Your task to perform on an android device: Go to calendar. Show me events next week Image 0: 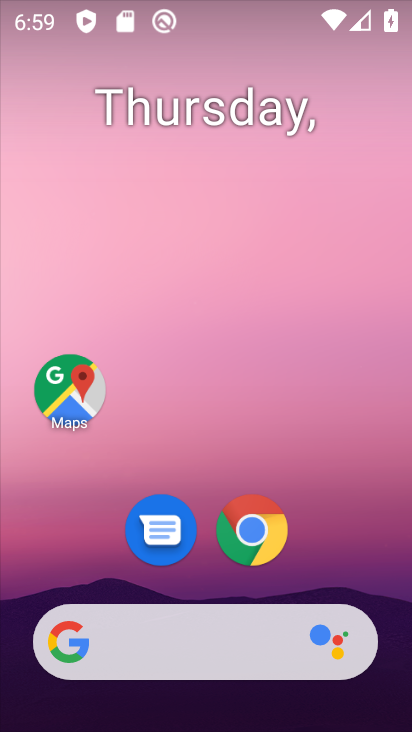
Step 0: drag from (199, 701) to (145, 337)
Your task to perform on an android device: Go to calendar. Show me events next week Image 1: 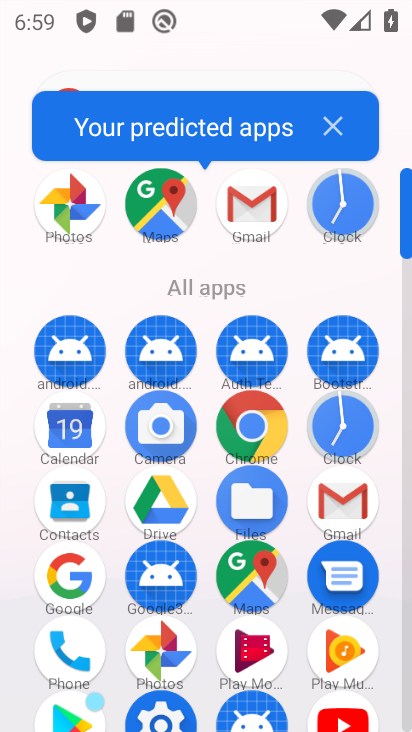
Step 1: click (77, 408)
Your task to perform on an android device: Go to calendar. Show me events next week Image 2: 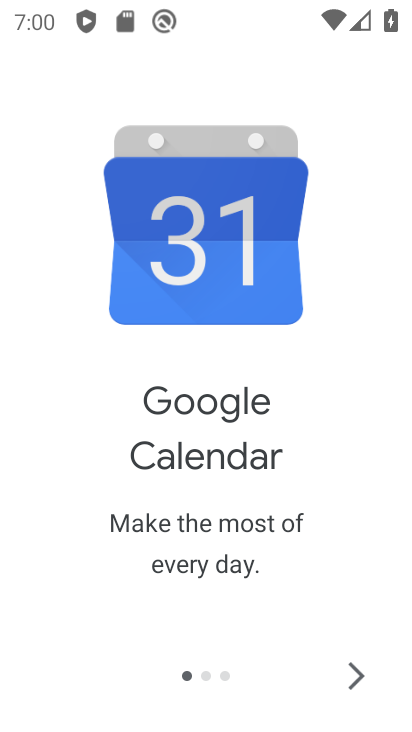
Step 2: click (376, 663)
Your task to perform on an android device: Go to calendar. Show me events next week Image 3: 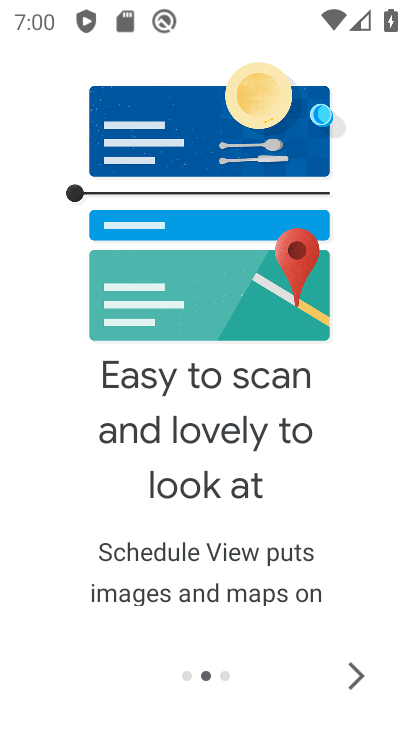
Step 3: click (352, 674)
Your task to perform on an android device: Go to calendar. Show me events next week Image 4: 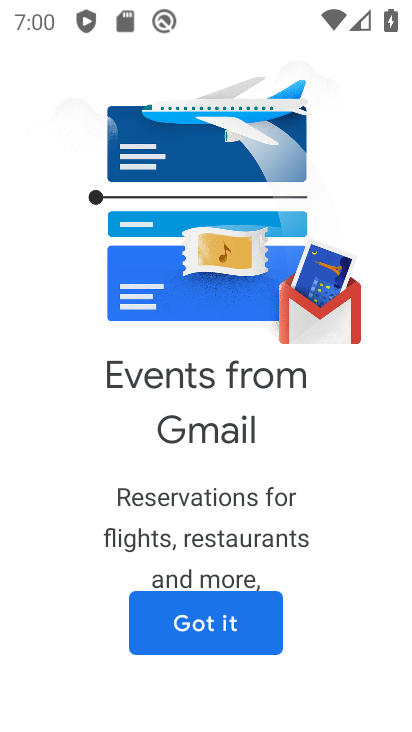
Step 4: click (261, 585)
Your task to perform on an android device: Go to calendar. Show me events next week Image 5: 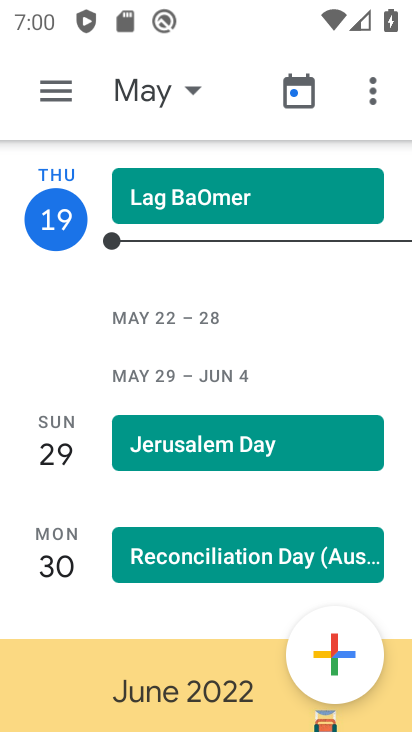
Step 5: click (33, 102)
Your task to perform on an android device: Go to calendar. Show me events next week Image 6: 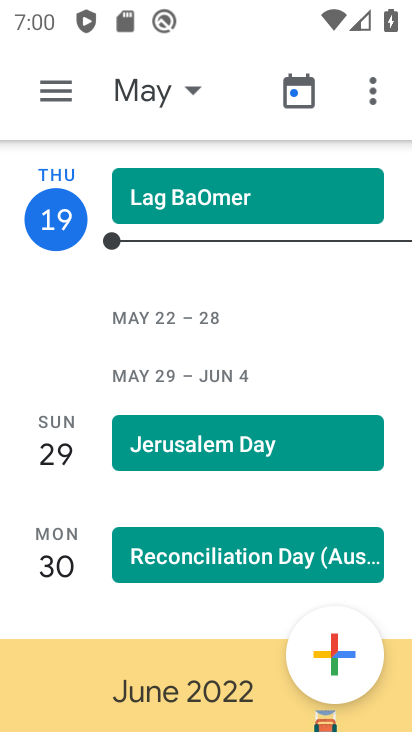
Step 6: click (61, 87)
Your task to perform on an android device: Go to calendar. Show me events next week Image 7: 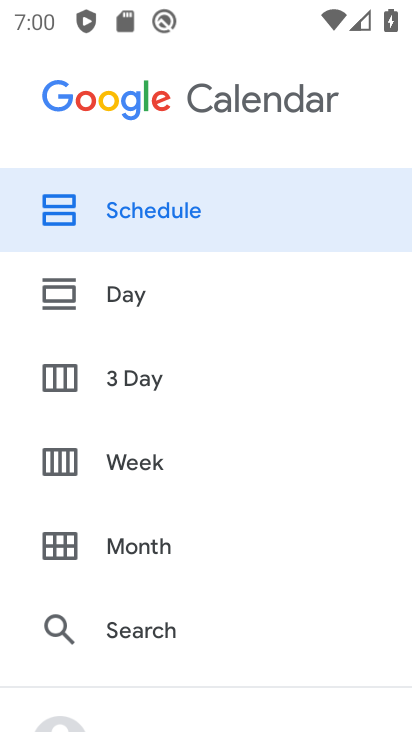
Step 7: click (162, 453)
Your task to perform on an android device: Go to calendar. Show me events next week Image 8: 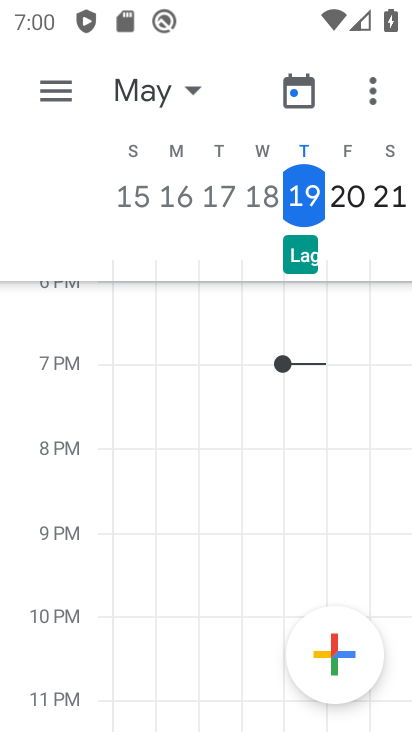
Step 8: click (57, 83)
Your task to perform on an android device: Go to calendar. Show me events next week Image 9: 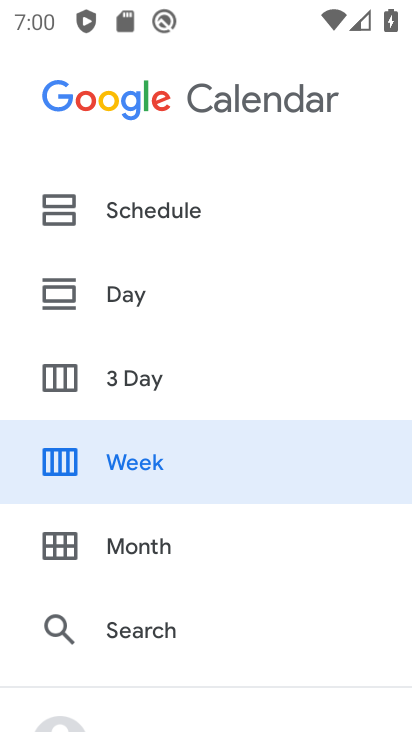
Step 9: click (151, 453)
Your task to perform on an android device: Go to calendar. Show me events next week Image 10: 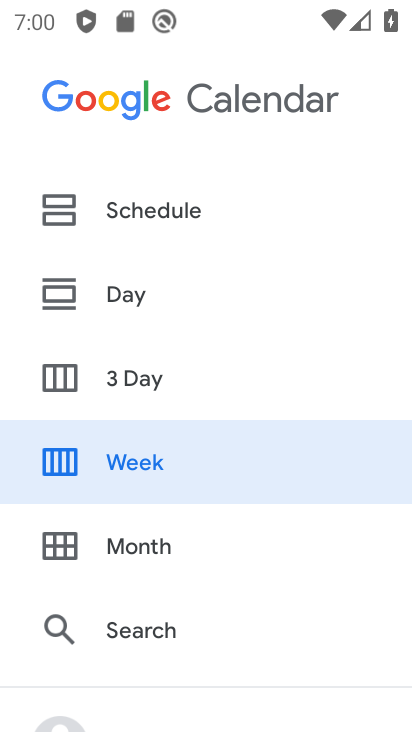
Step 10: click (192, 459)
Your task to perform on an android device: Go to calendar. Show me events next week Image 11: 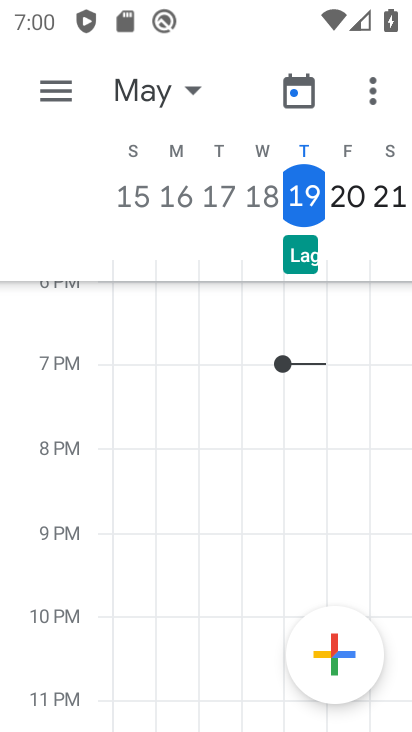
Step 11: task complete